Your task to perform on an android device: turn off priority inbox in the gmail app Image 0: 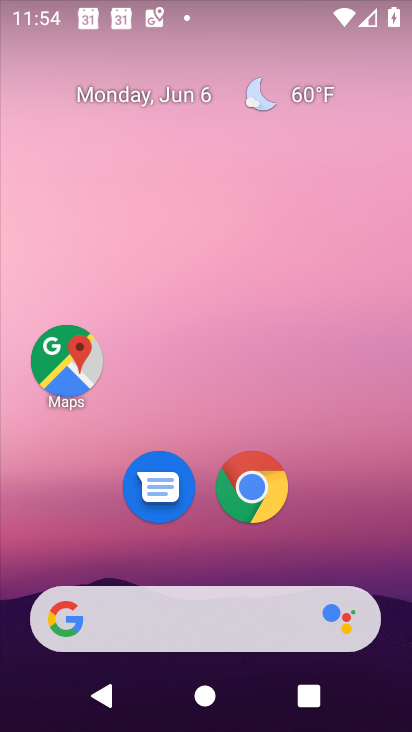
Step 0: drag from (335, 572) to (290, 220)
Your task to perform on an android device: turn off priority inbox in the gmail app Image 1: 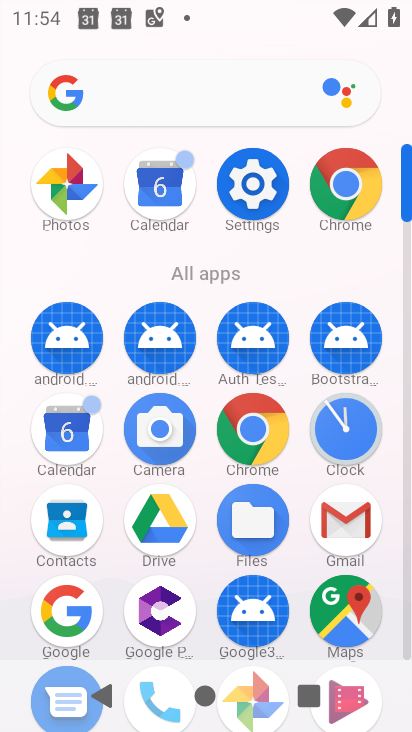
Step 1: click (353, 523)
Your task to perform on an android device: turn off priority inbox in the gmail app Image 2: 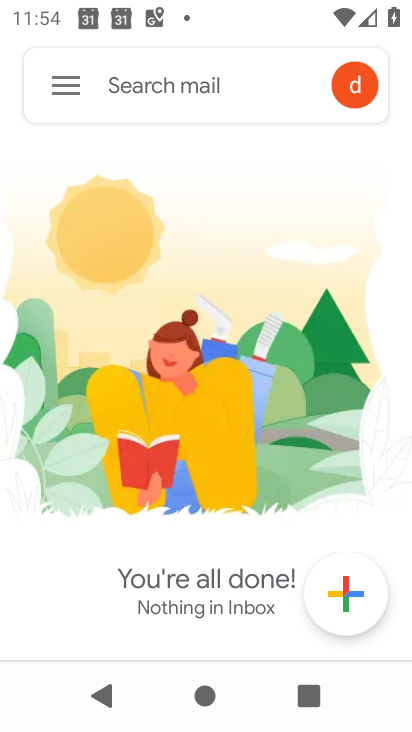
Step 2: click (64, 102)
Your task to perform on an android device: turn off priority inbox in the gmail app Image 3: 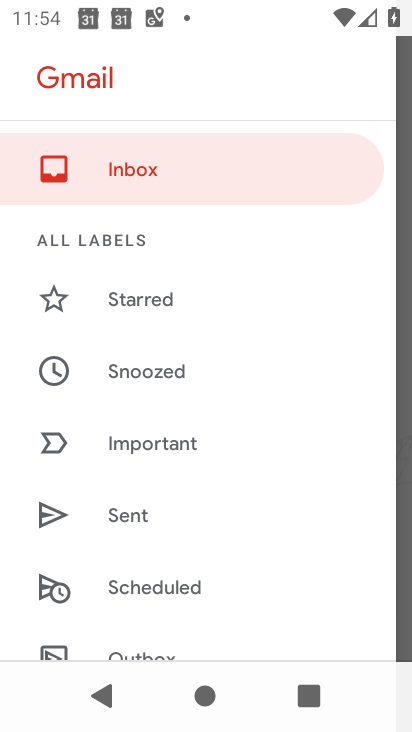
Step 3: drag from (185, 624) to (114, 47)
Your task to perform on an android device: turn off priority inbox in the gmail app Image 4: 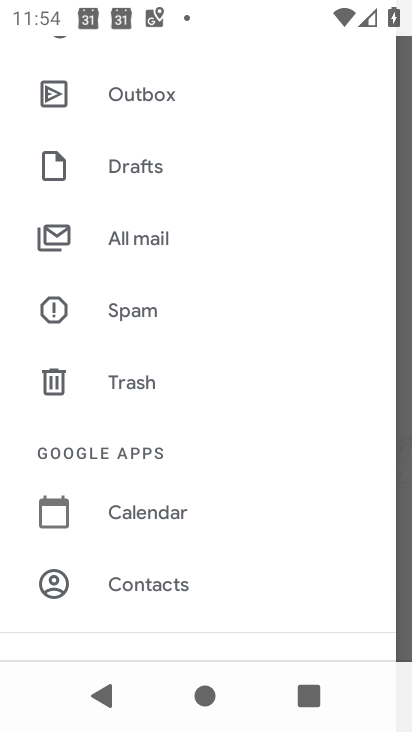
Step 4: drag from (144, 472) to (101, 120)
Your task to perform on an android device: turn off priority inbox in the gmail app Image 5: 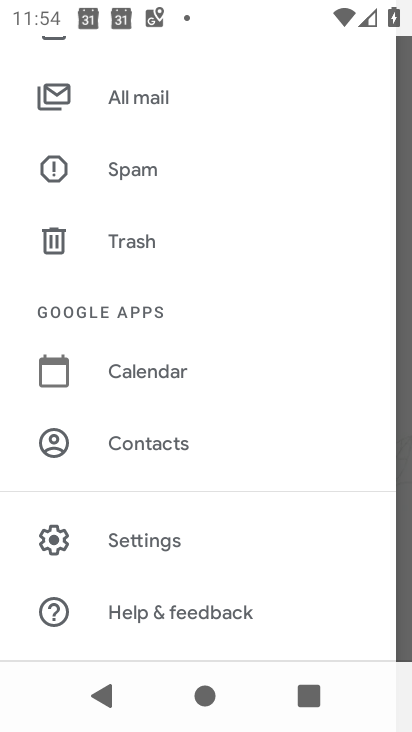
Step 5: click (134, 532)
Your task to perform on an android device: turn off priority inbox in the gmail app Image 6: 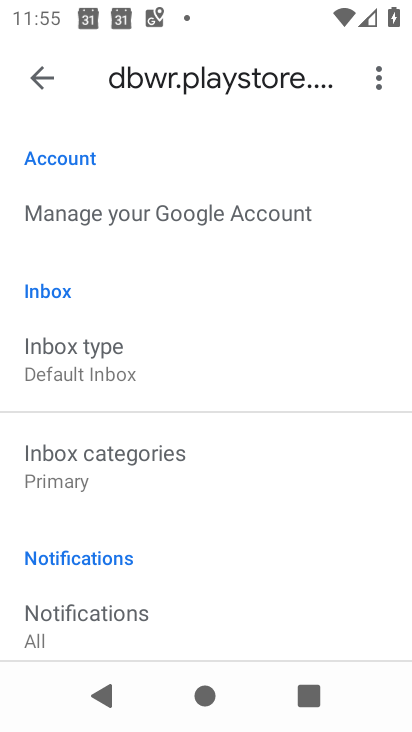
Step 6: click (140, 381)
Your task to perform on an android device: turn off priority inbox in the gmail app Image 7: 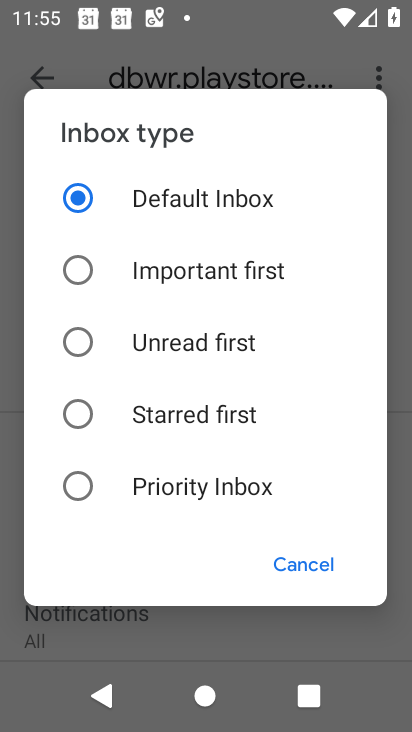
Step 7: task complete